Your task to perform on an android device: What's on my calendar today? Image 0: 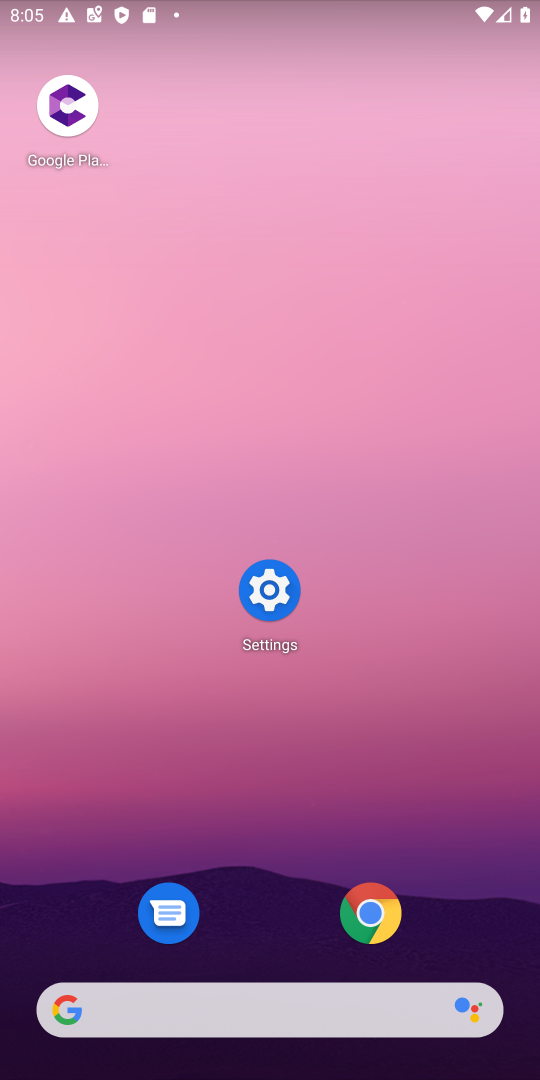
Step 0: drag from (203, 1002) to (333, 209)
Your task to perform on an android device: What's on my calendar today? Image 1: 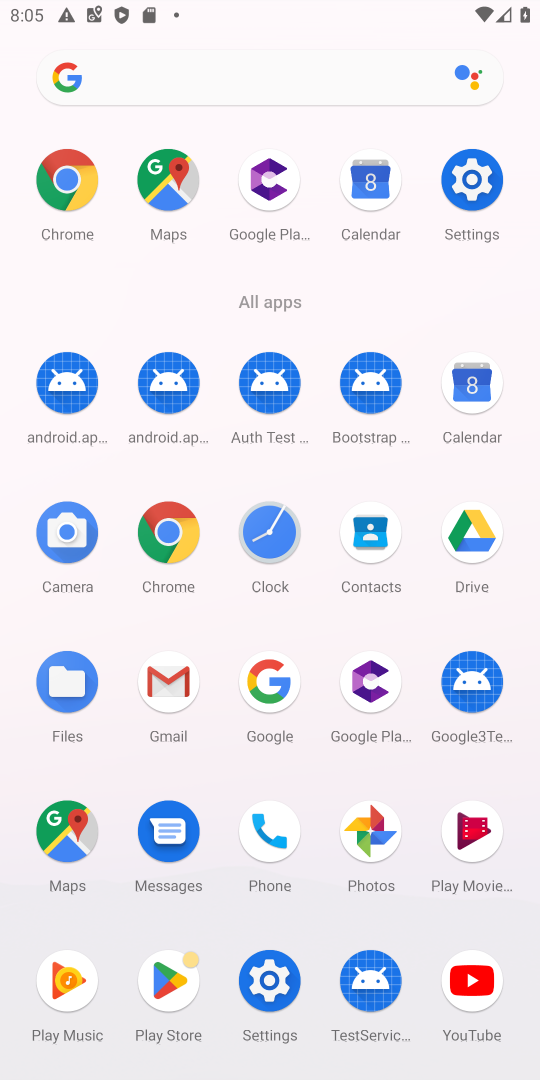
Step 1: click (472, 387)
Your task to perform on an android device: What's on my calendar today? Image 2: 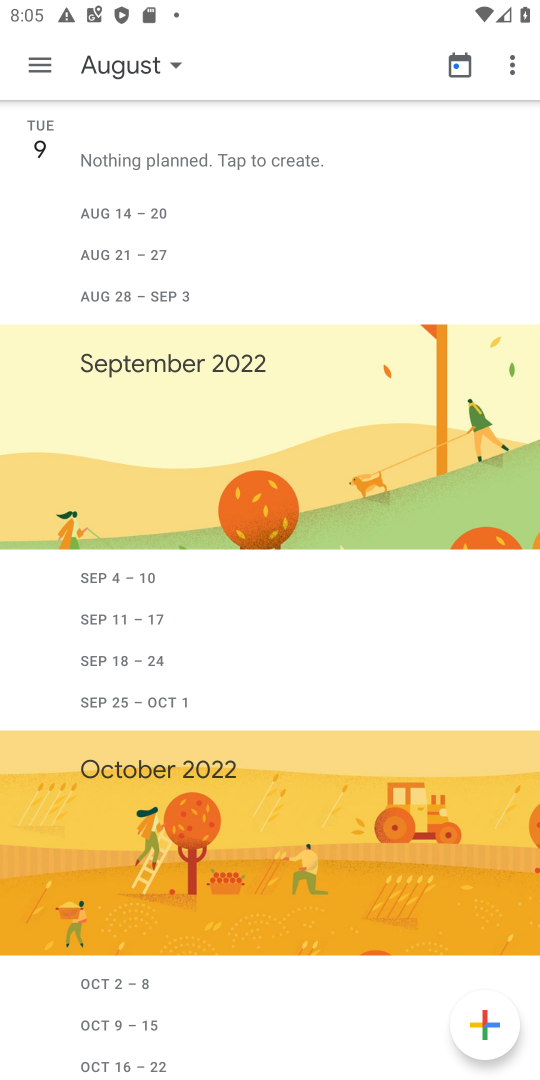
Step 2: click (458, 69)
Your task to perform on an android device: What's on my calendar today? Image 3: 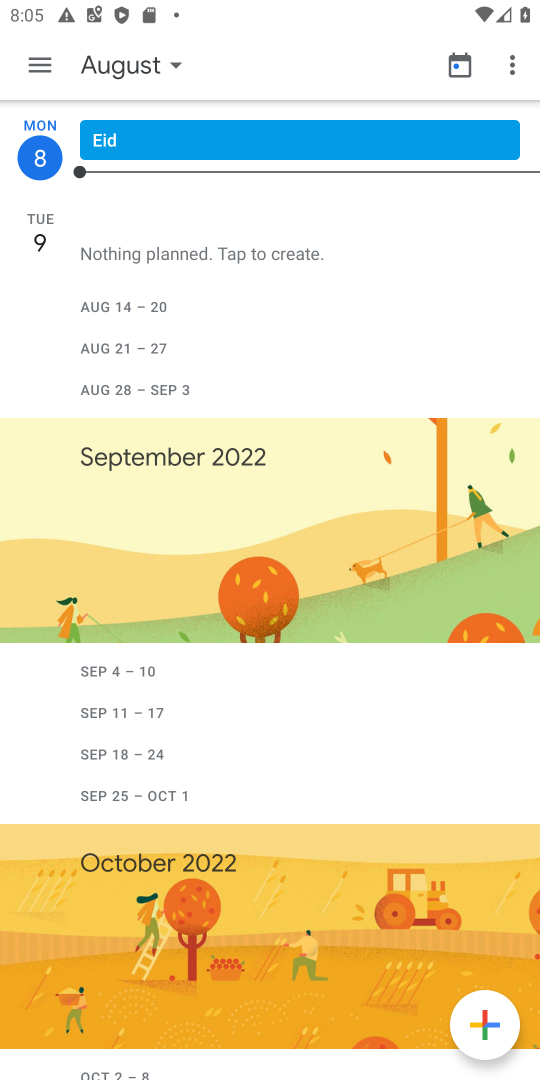
Step 3: click (175, 70)
Your task to perform on an android device: What's on my calendar today? Image 4: 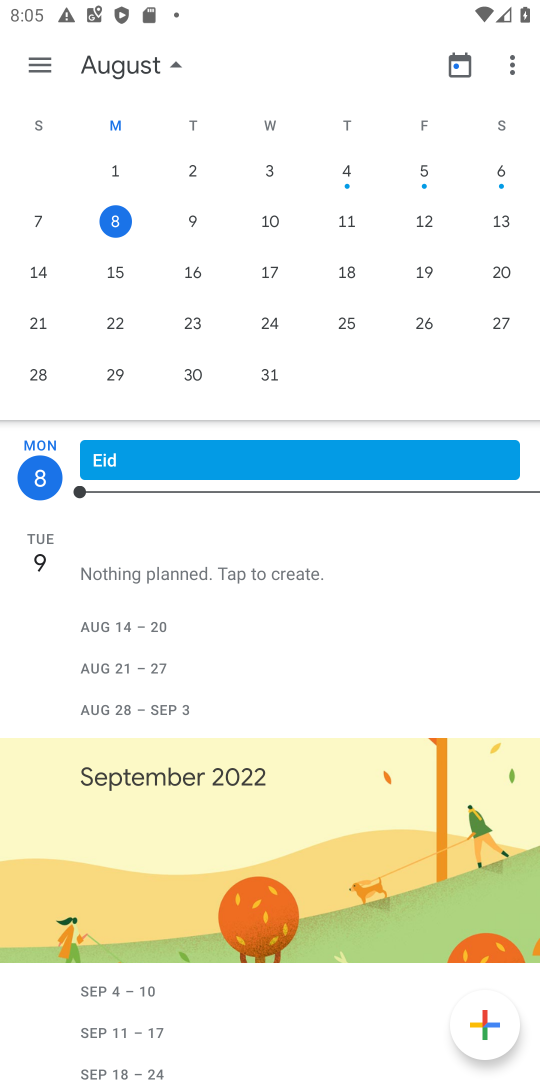
Step 4: click (119, 230)
Your task to perform on an android device: What's on my calendar today? Image 5: 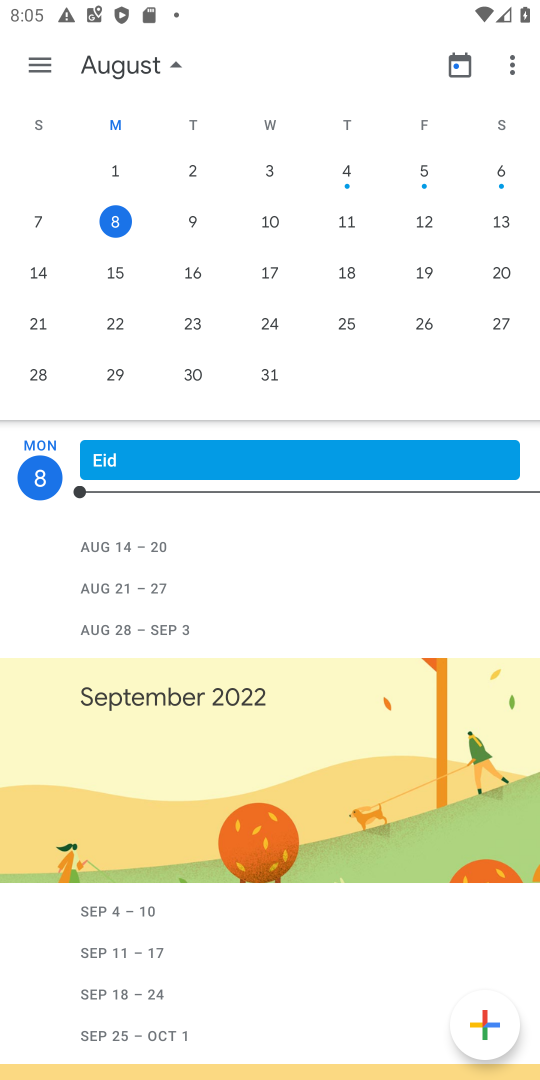
Step 5: click (47, 67)
Your task to perform on an android device: What's on my calendar today? Image 6: 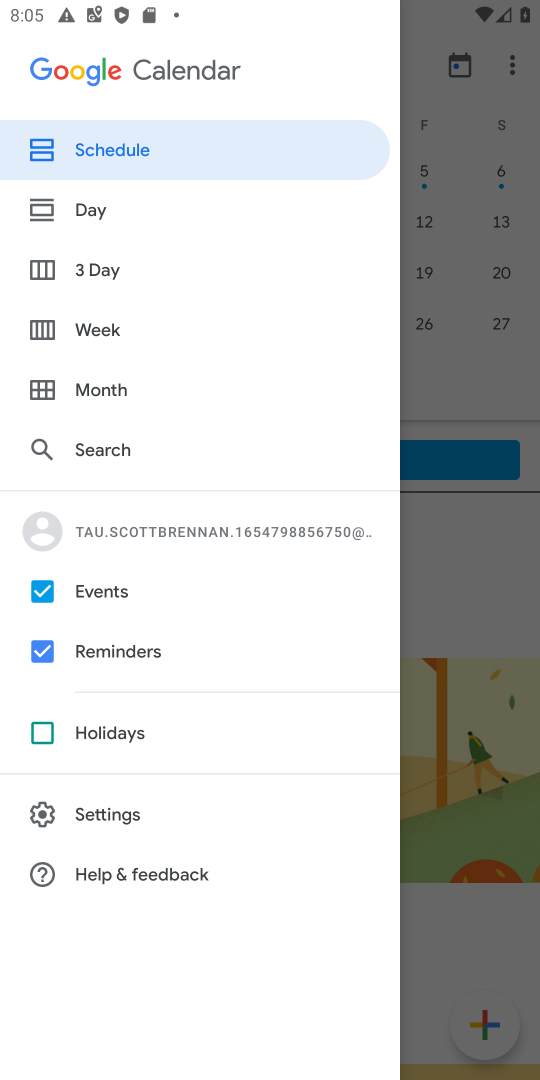
Step 6: click (79, 150)
Your task to perform on an android device: What's on my calendar today? Image 7: 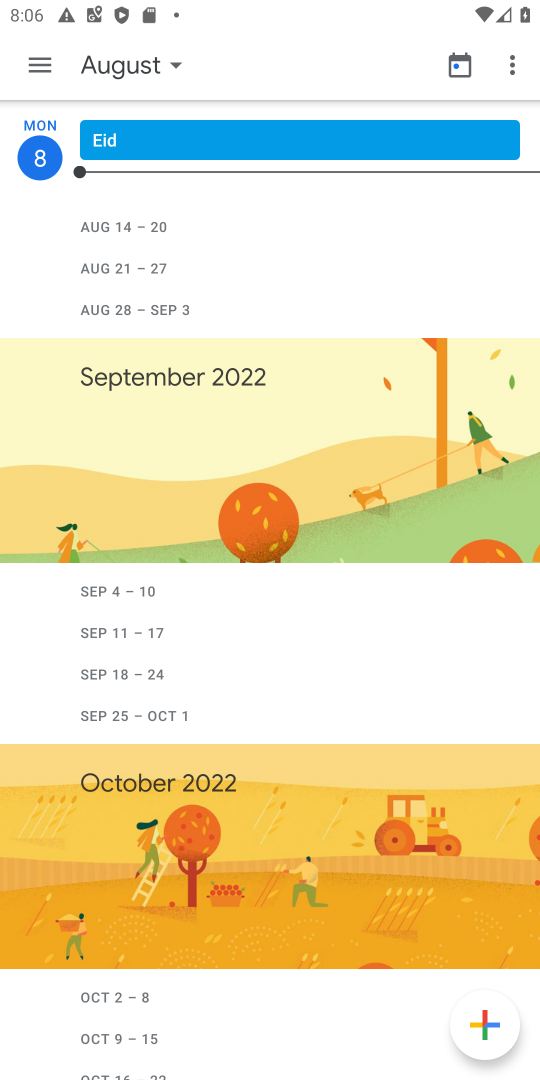
Step 7: task complete